Your task to perform on an android device: empty trash in google photos Image 0: 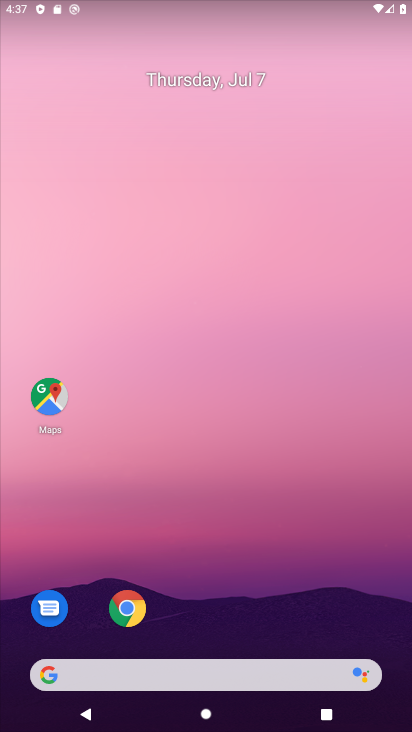
Step 0: drag from (219, 642) to (219, 29)
Your task to perform on an android device: empty trash in google photos Image 1: 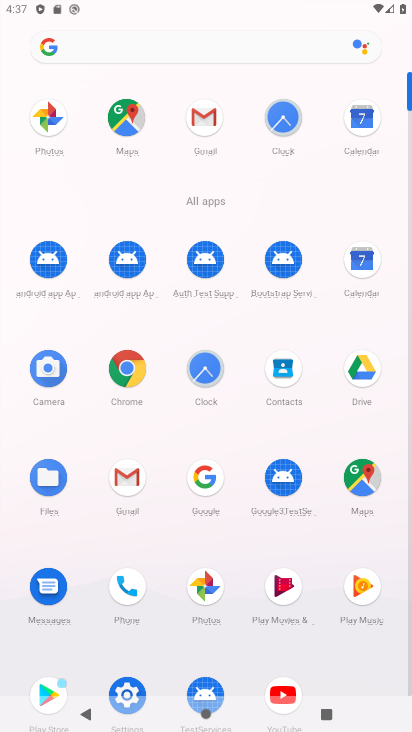
Step 1: click (209, 589)
Your task to perform on an android device: empty trash in google photos Image 2: 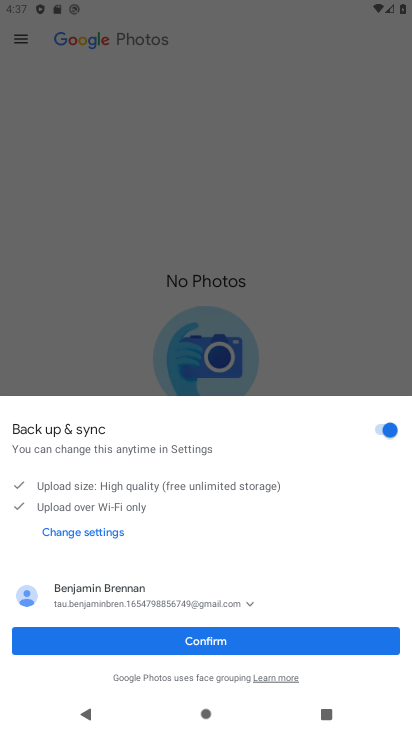
Step 2: click (181, 632)
Your task to perform on an android device: empty trash in google photos Image 3: 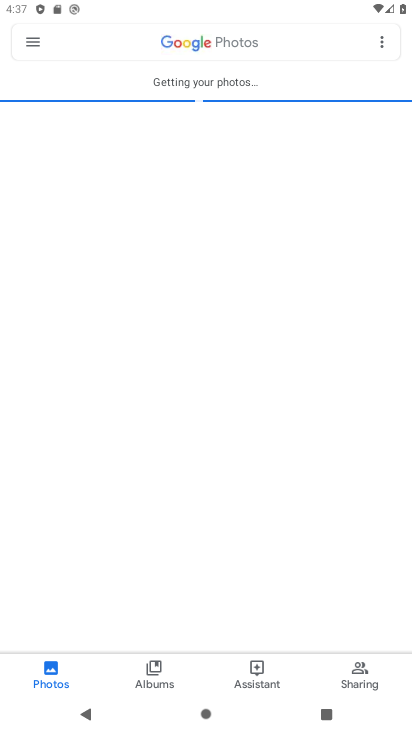
Step 3: click (32, 46)
Your task to perform on an android device: empty trash in google photos Image 4: 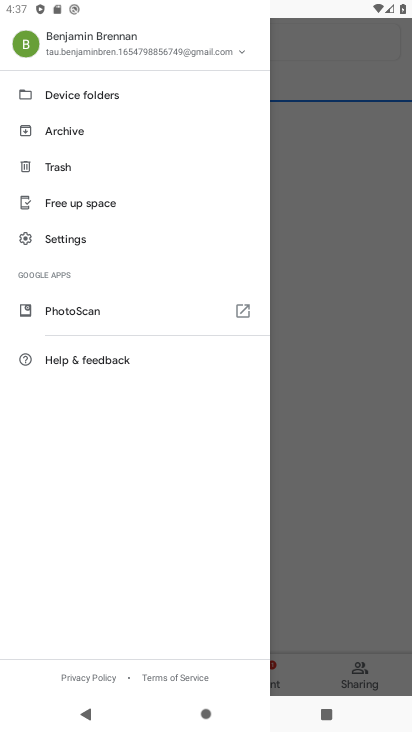
Step 4: click (81, 175)
Your task to perform on an android device: empty trash in google photos Image 5: 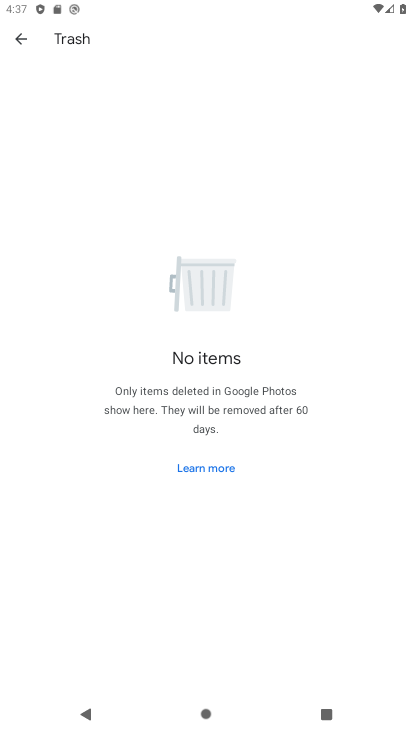
Step 5: task complete